Your task to perform on an android device: toggle data saver in the chrome app Image 0: 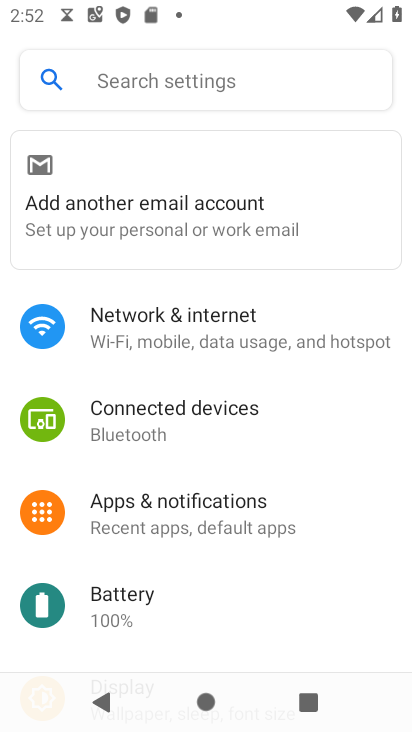
Step 0: press home button
Your task to perform on an android device: toggle data saver in the chrome app Image 1: 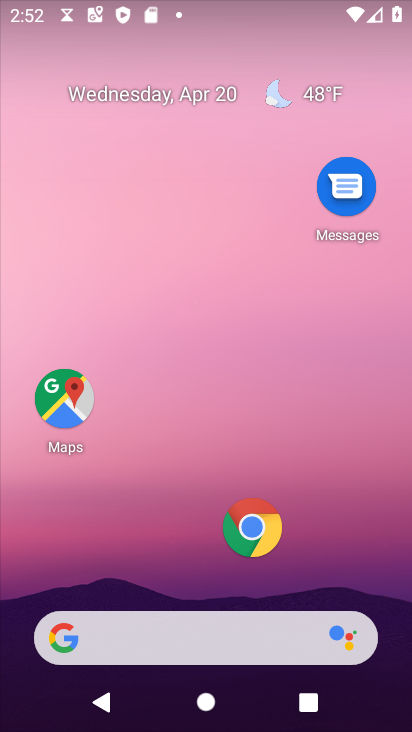
Step 1: drag from (135, 637) to (326, 46)
Your task to perform on an android device: toggle data saver in the chrome app Image 2: 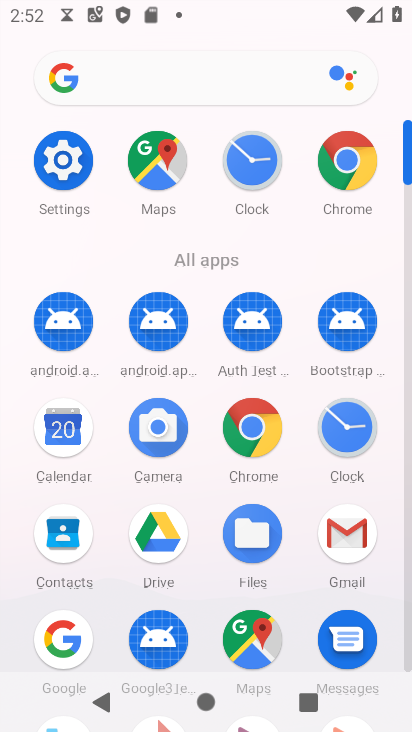
Step 2: click (346, 177)
Your task to perform on an android device: toggle data saver in the chrome app Image 3: 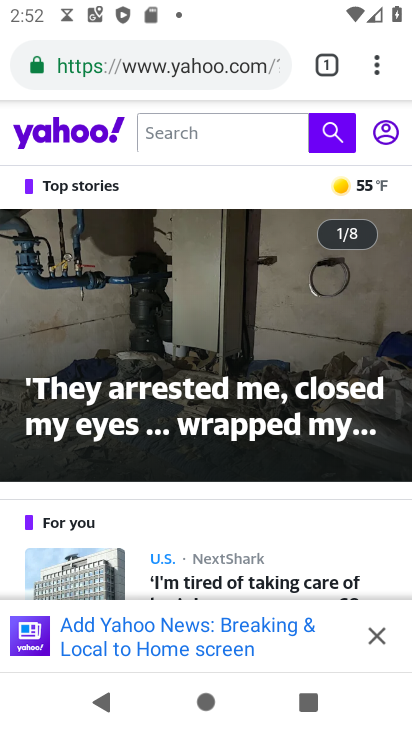
Step 3: click (367, 70)
Your task to perform on an android device: toggle data saver in the chrome app Image 4: 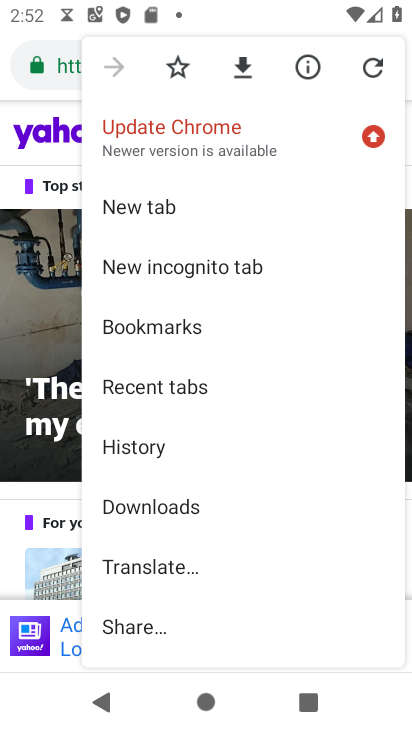
Step 4: drag from (217, 565) to (383, 154)
Your task to perform on an android device: toggle data saver in the chrome app Image 5: 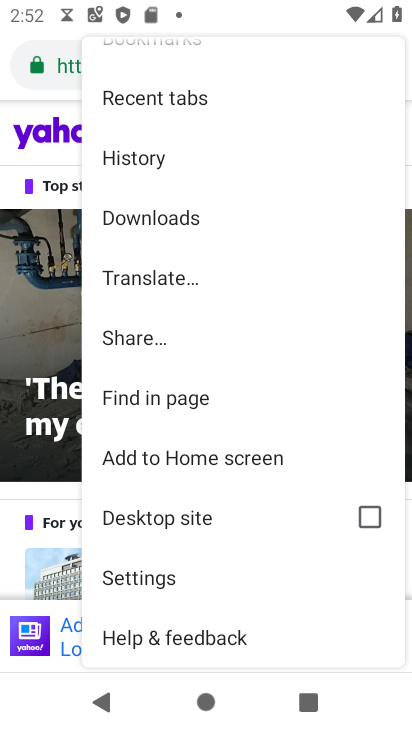
Step 5: click (131, 570)
Your task to perform on an android device: toggle data saver in the chrome app Image 6: 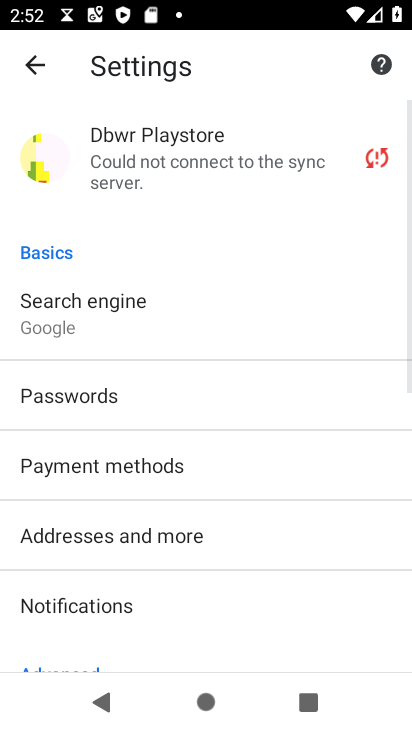
Step 6: drag from (205, 607) to (393, 94)
Your task to perform on an android device: toggle data saver in the chrome app Image 7: 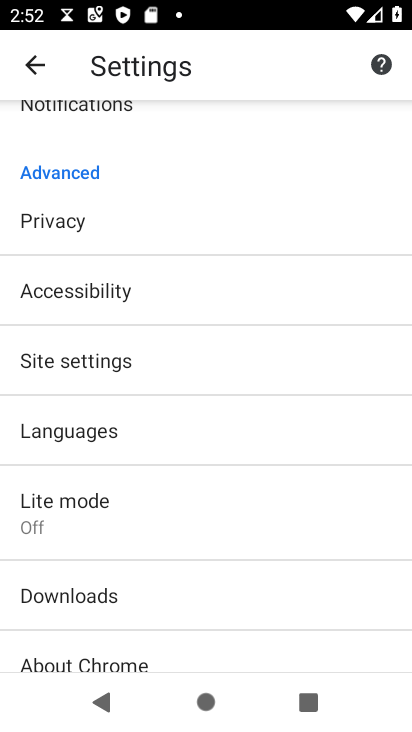
Step 7: click (64, 508)
Your task to perform on an android device: toggle data saver in the chrome app Image 8: 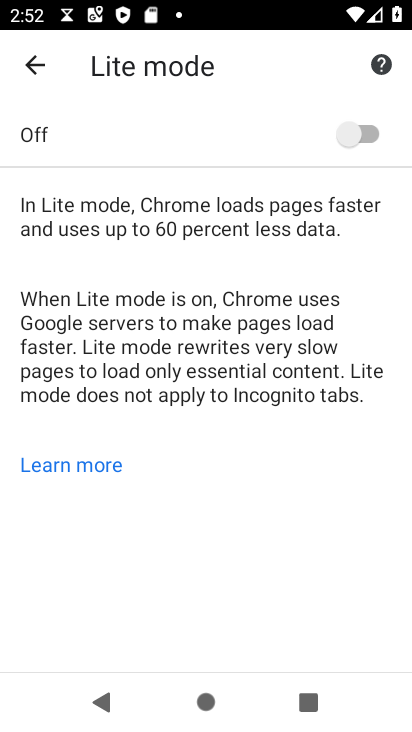
Step 8: click (369, 134)
Your task to perform on an android device: toggle data saver in the chrome app Image 9: 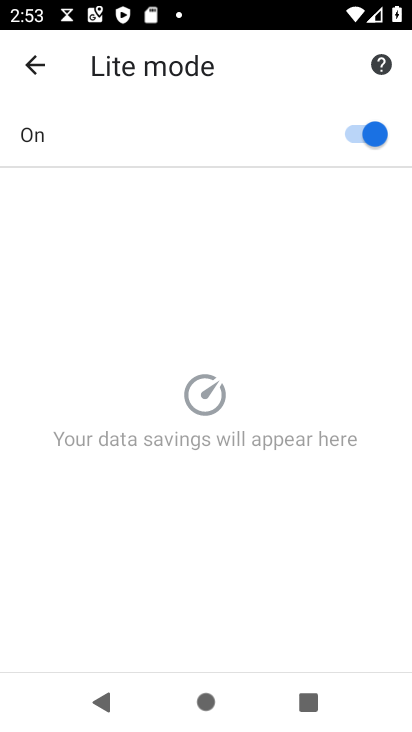
Step 9: task complete